Your task to perform on an android device: Open calendar and show me the third week of next month Image 0: 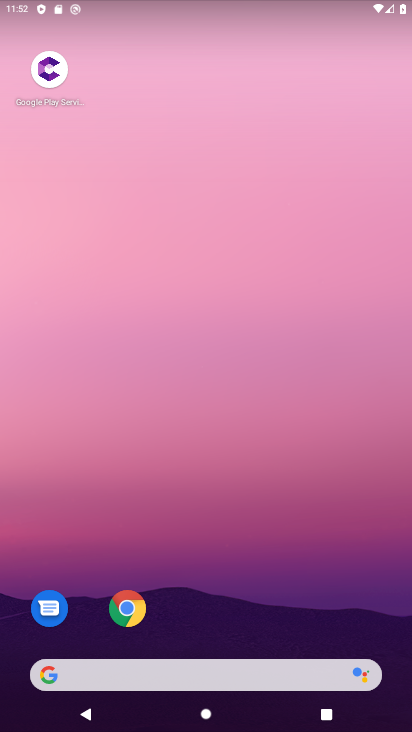
Step 0: drag from (347, 568) to (332, 116)
Your task to perform on an android device: Open calendar and show me the third week of next month Image 1: 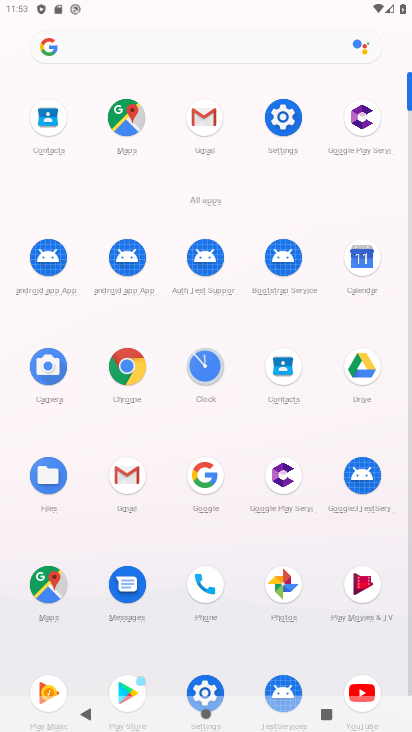
Step 1: click (361, 257)
Your task to perform on an android device: Open calendar and show me the third week of next month Image 2: 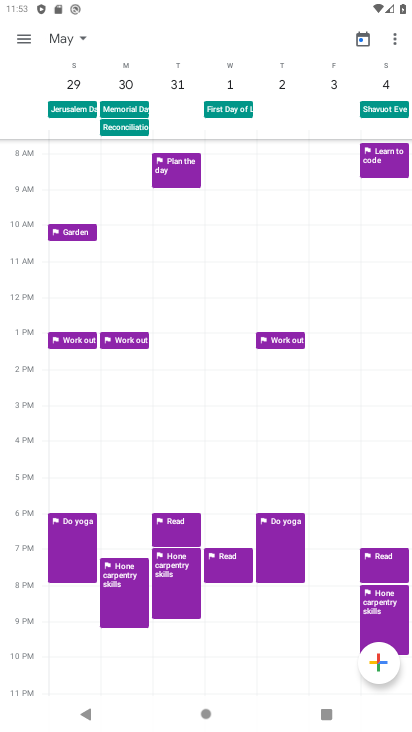
Step 2: click (89, 39)
Your task to perform on an android device: Open calendar and show me the third week of next month Image 3: 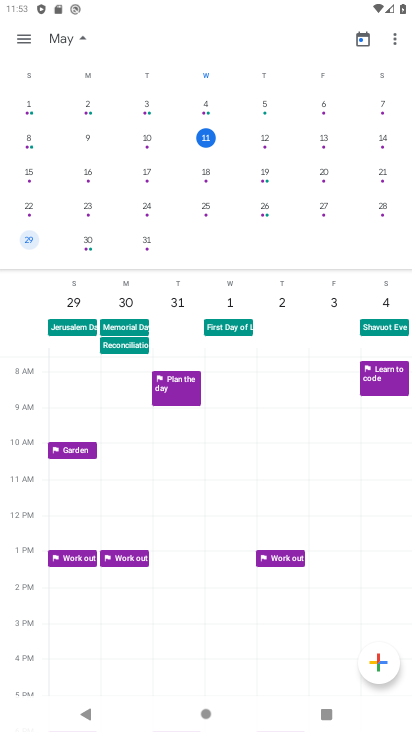
Step 3: drag from (252, 173) to (22, 172)
Your task to perform on an android device: Open calendar and show me the third week of next month Image 4: 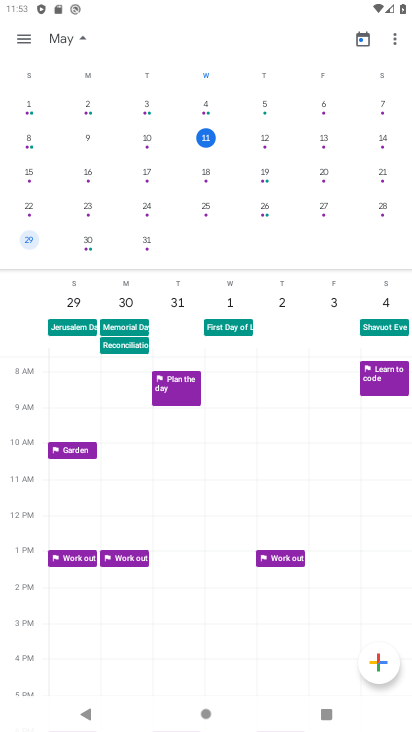
Step 4: drag from (301, 152) to (28, 135)
Your task to perform on an android device: Open calendar and show me the third week of next month Image 5: 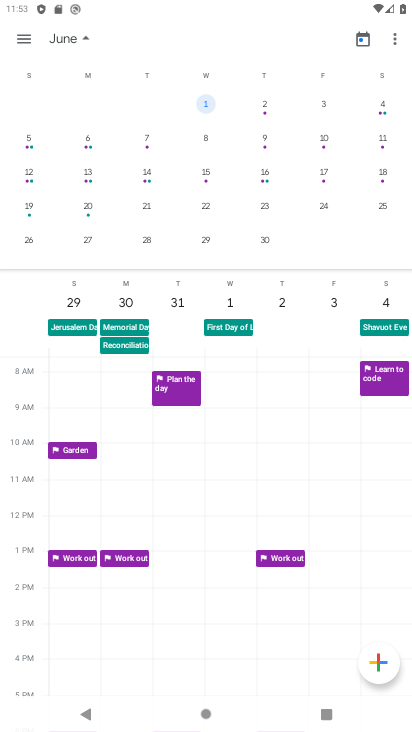
Step 5: click (31, 45)
Your task to perform on an android device: Open calendar and show me the third week of next month Image 6: 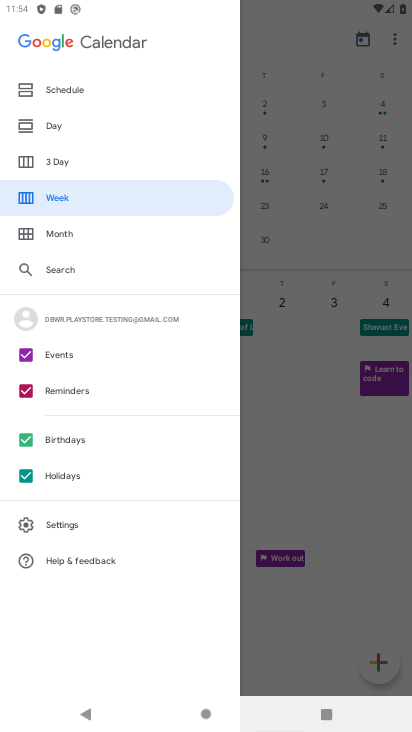
Step 6: click (52, 193)
Your task to perform on an android device: Open calendar and show me the third week of next month Image 7: 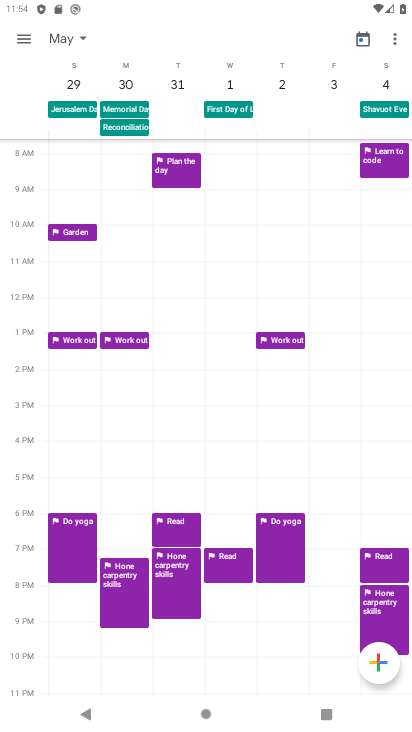
Step 7: task complete